Your task to perform on an android device: empty trash in google photos Image 0: 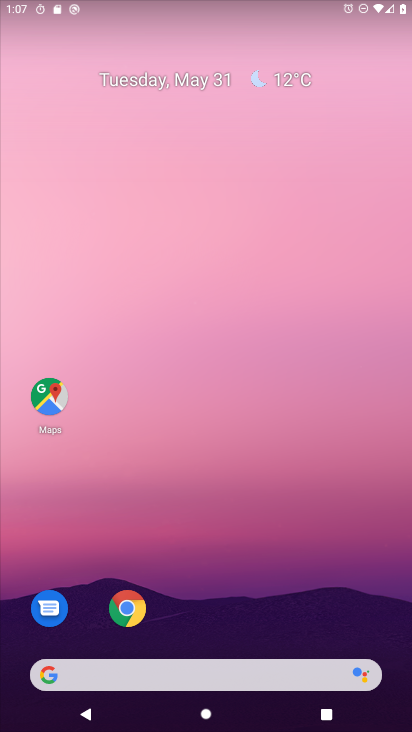
Step 0: drag from (305, 644) to (332, 22)
Your task to perform on an android device: empty trash in google photos Image 1: 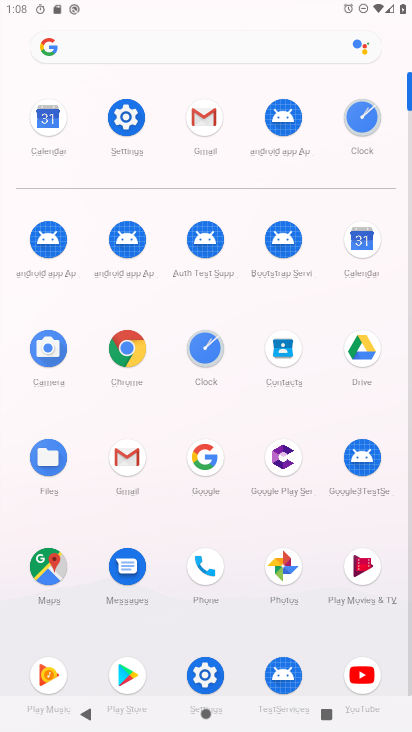
Step 1: click (282, 571)
Your task to perform on an android device: empty trash in google photos Image 2: 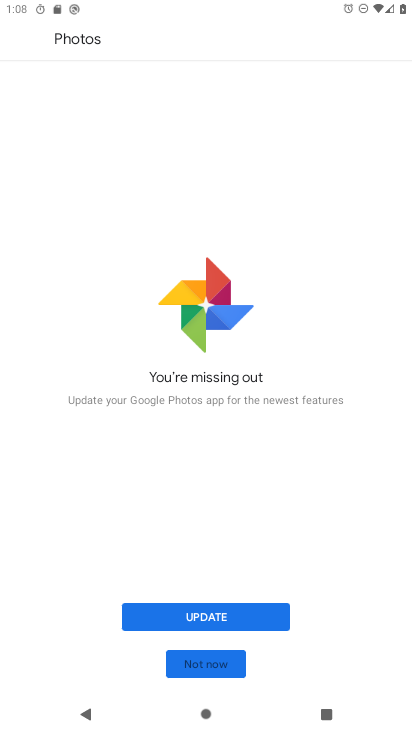
Step 2: click (181, 667)
Your task to perform on an android device: empty trash in google photos Image 3: 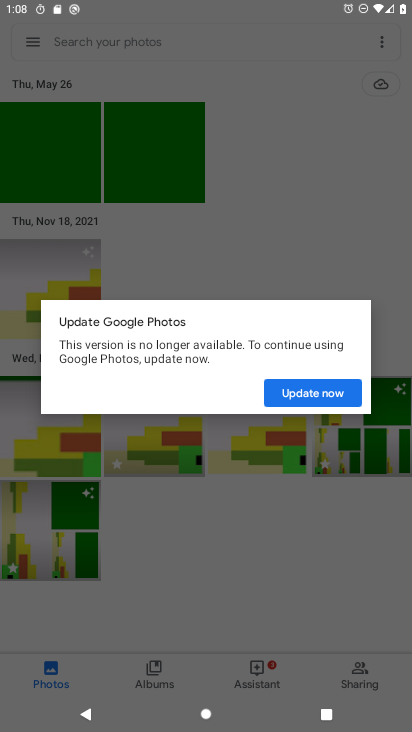
Step 3: click (320, 392)
Your task to perform on an android device: empty trash in google photos Image 4: 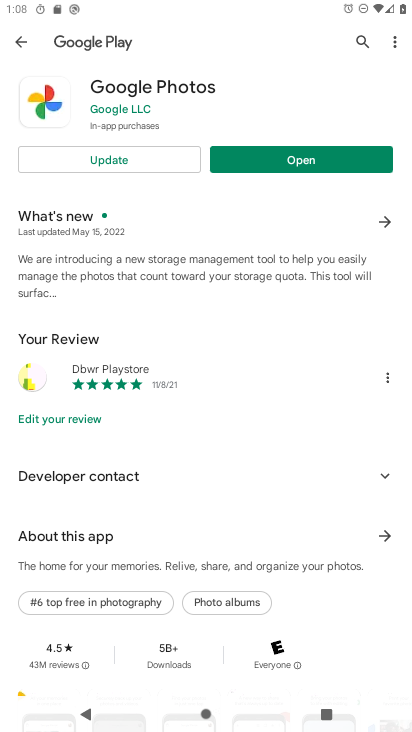
Step 4: click (276, 166)
Your task to perform on an android device: empty trash in google photos Image 5: 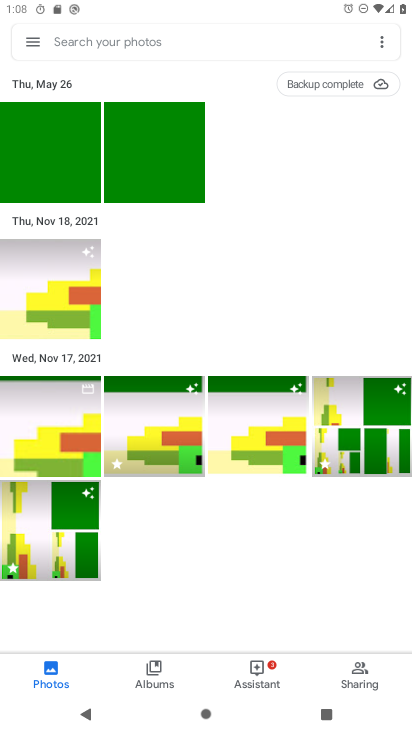
Step 5: click (30, 40)
Your task to perform on an android device: empty trash in google photos Image 6: 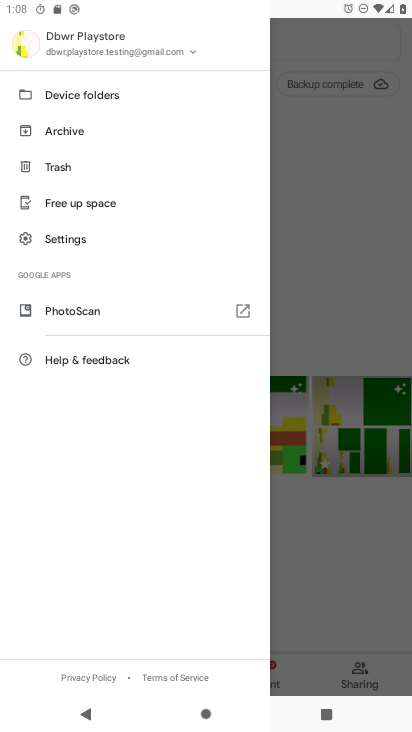
Step 6: click (52, 165)
Your task to perform on an android device: empty trash in google photos Image 7: 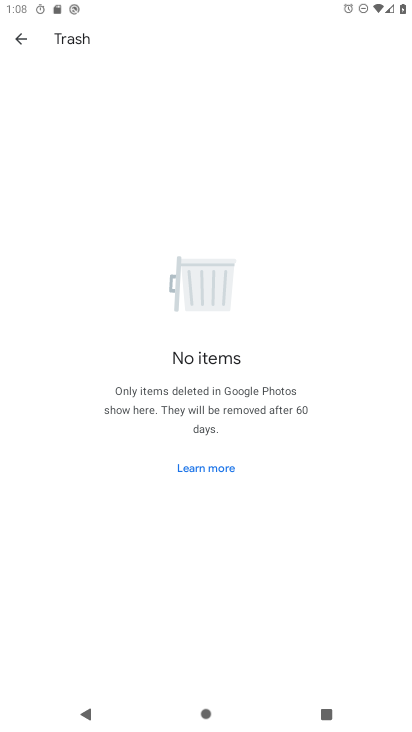
Step 7: task complete